Your task to perform on an android device: delete location history Image 0: 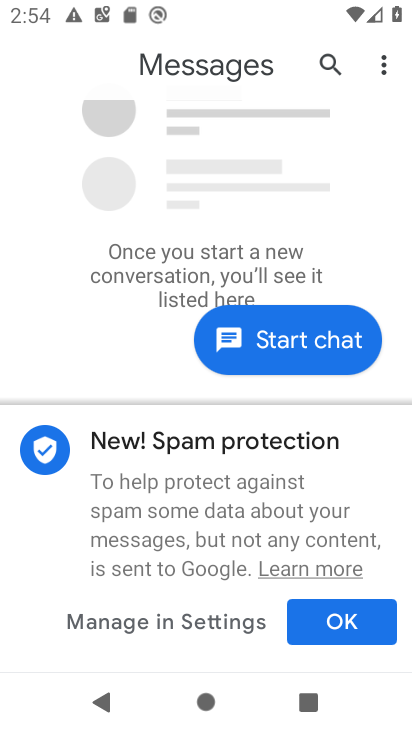
Step 0: press home button
Your task to perform on an android device: delete location history Image 1: 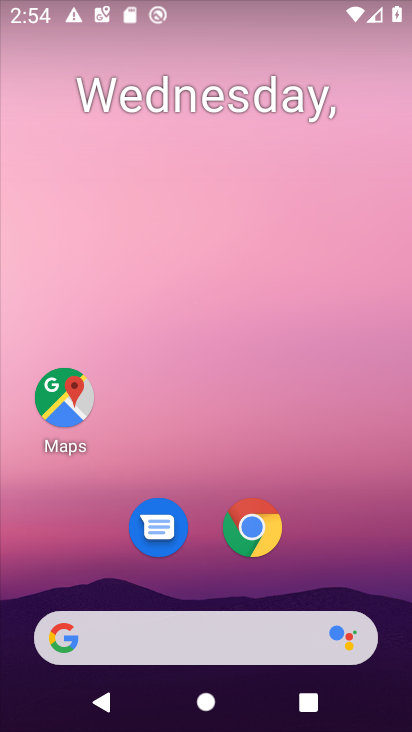
Step 1: drag from (207, 562) to (172, 116)
Your task to perform on an android device: delete location history Image 2: 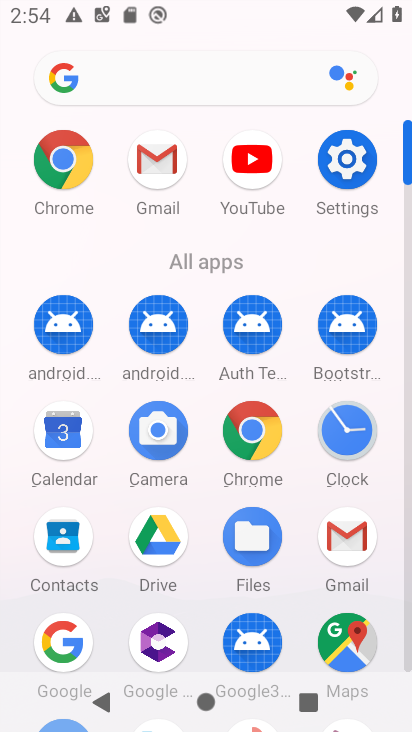
Step 2: click (342, 645)
Your task to perform on an android device: delete location history Image 3: 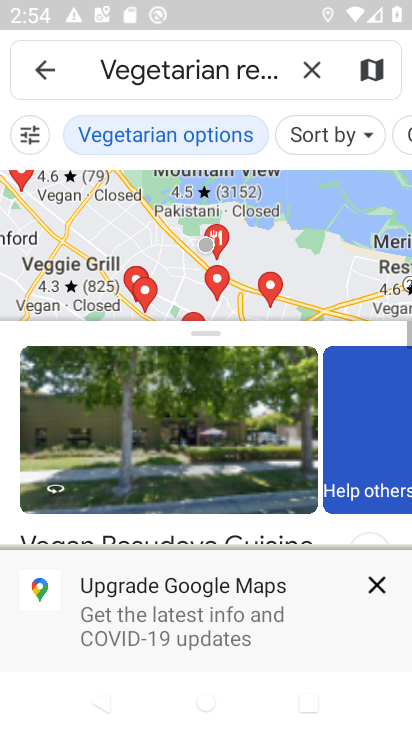
Step 3: click (39, 62)
Your task to perform on an android device: delete location history Image 4: 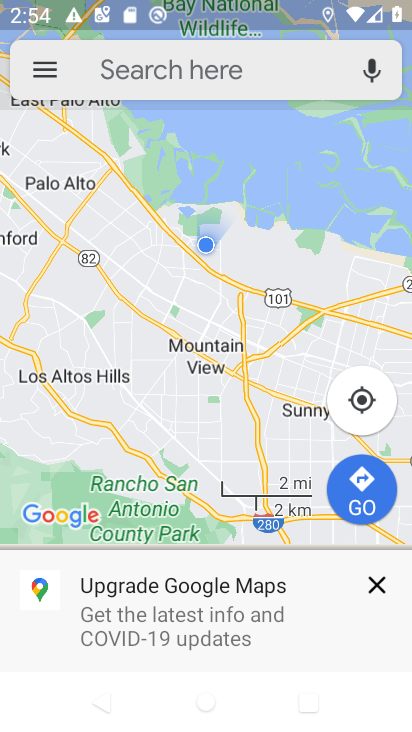
Step 4: click (39, 62)
Your task to perform on an android device: delete location history Image 5: 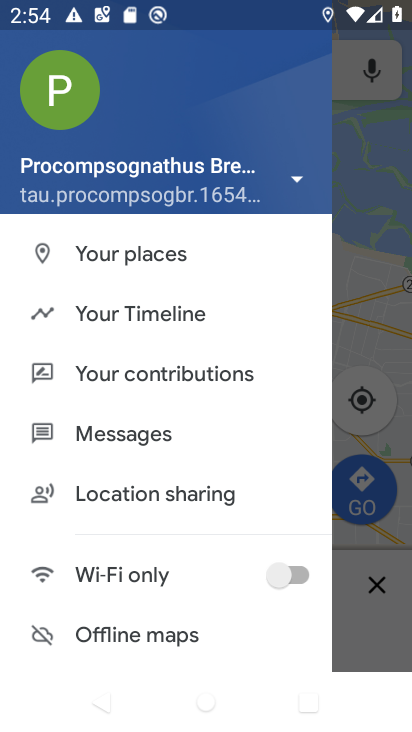
Step 5: drag from (129, 603) to (140, 135)
Your task to perform on an android device: delete location history Image 6: 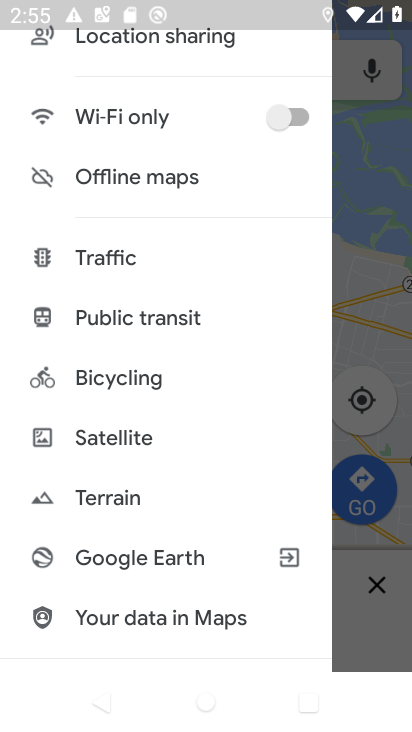
Step 6: drag from (225, 515) to (224, 164)
Your task to perform on an android device: delete location history Image 7: 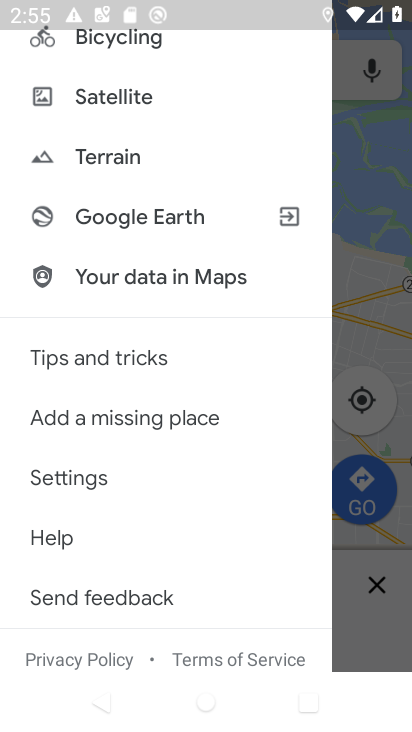
Step 7: click (90, 486)
Your task to perform on an android device: delete location history Image 8: 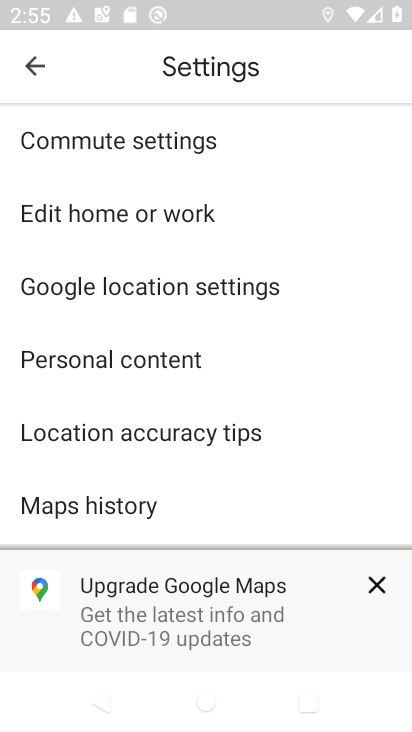
Step 8: click (124, 507)
Your task to perform on an android device: delete location history Image 9: 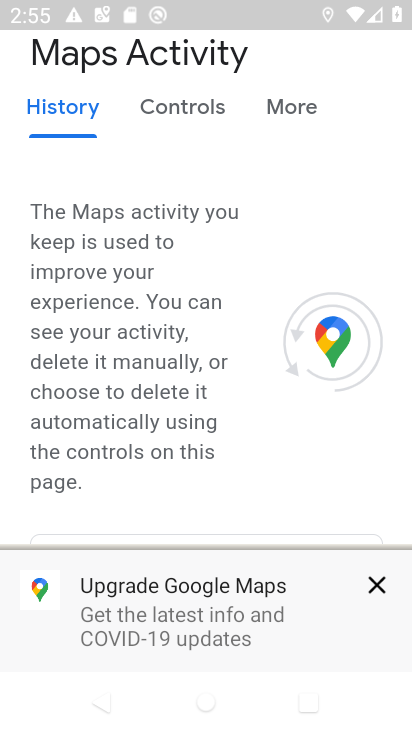
Step 9: drag from (172, 343) to (191, 52)
Your task to perform on an android device: delete location history Image 10: 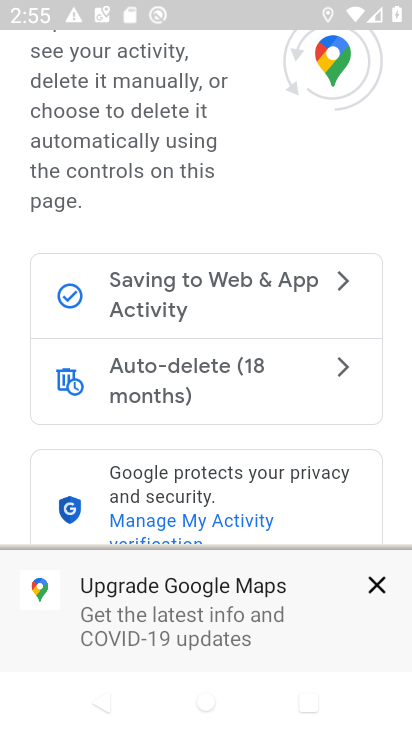
Step 10: click (381, 580)
Your task to perform on an android device: delete location history Image 11: 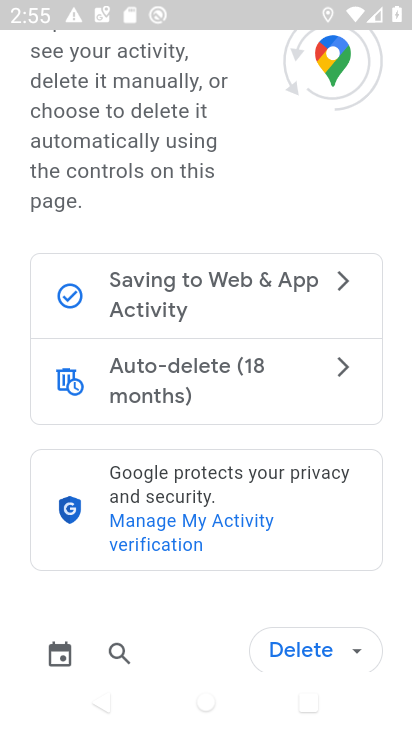
Step 11: click (332, 642)
Your task to perform on an android device: delete location history Image 12: 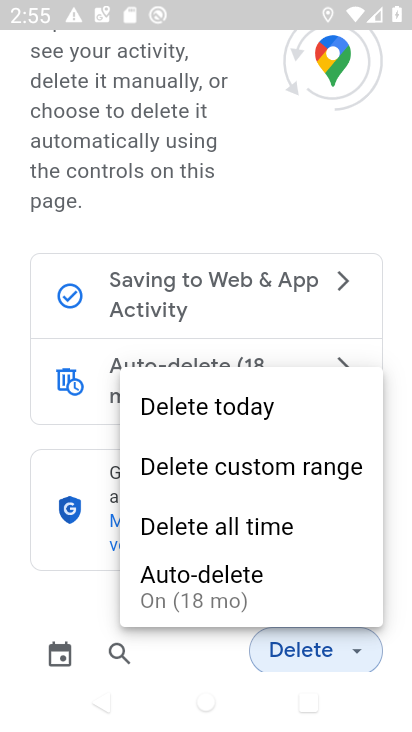
Step 12: drag from (197, 619) to (204, 482)
Your task to perform on an android device: delete location history Image 13: 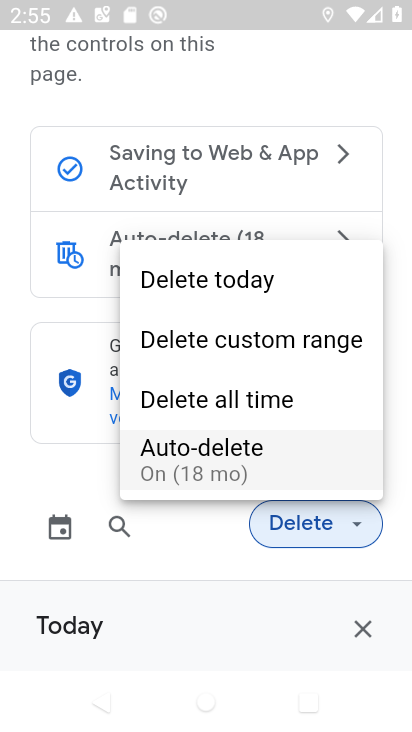
Step 13: click (181, 469)
Your task to perform on an android device: delete location history Image 14: 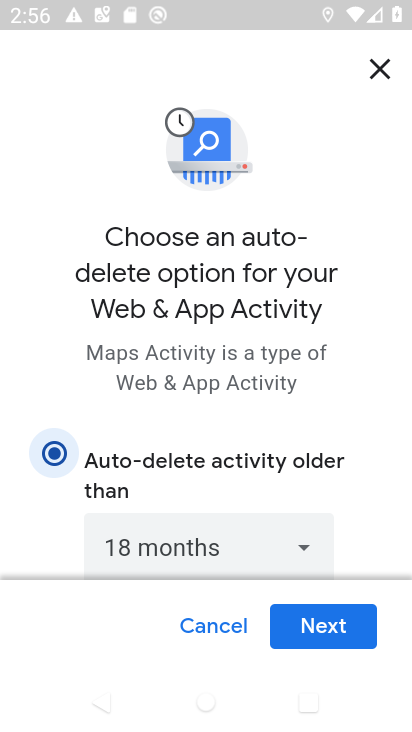
Step 14: click (301, 616)
Your task to perform on an android device: delete location history Image 15: 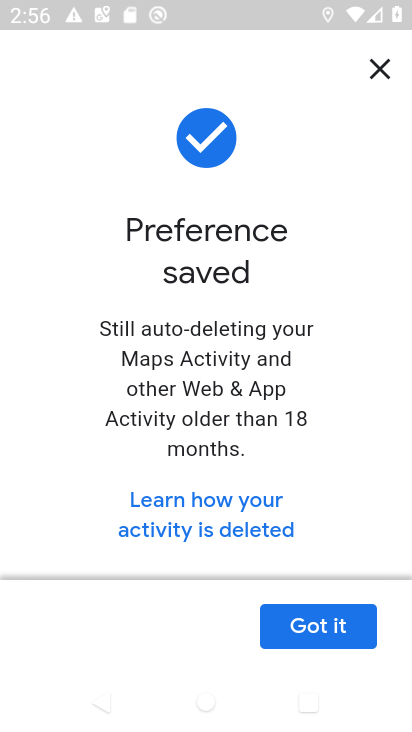
Step 15: click (334, 614)
Your task to perform on an android device: delete location history Image 16: 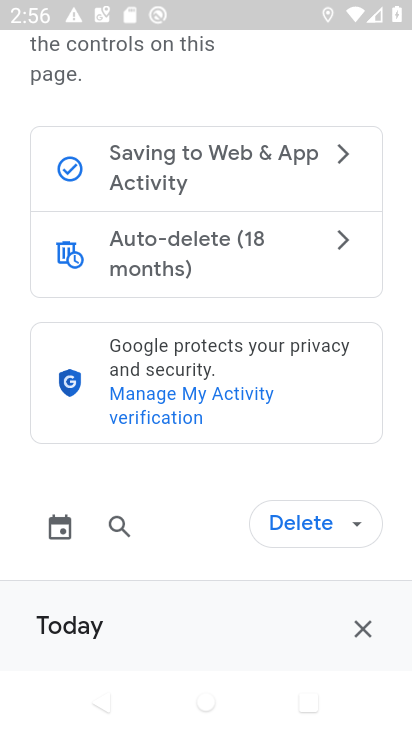
Step 16: click (315, 520)
Your task to perform on an android device: delete location history Image 17: 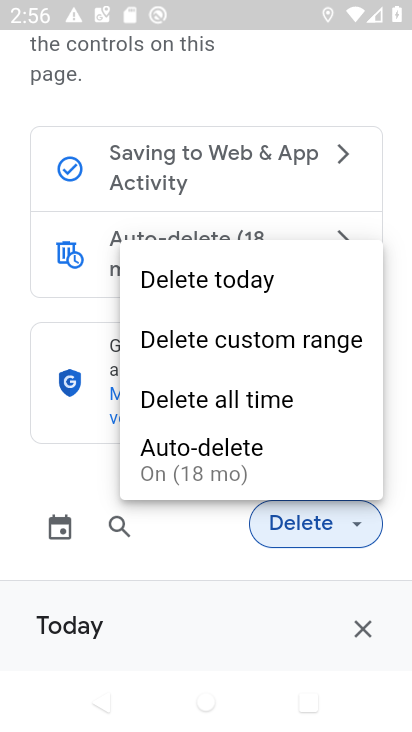
Step 17: click (234, 398)
Your task to perform on an android device: delete location history Image 18: 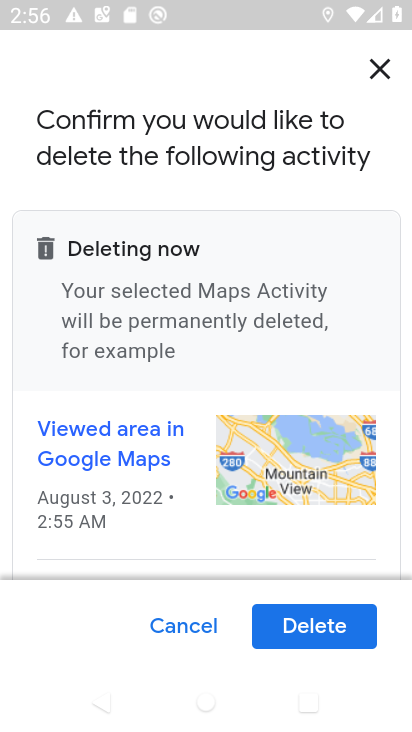
Step 18: click (316, 629)
Your task to perform on an android device: delete location history Image 19: 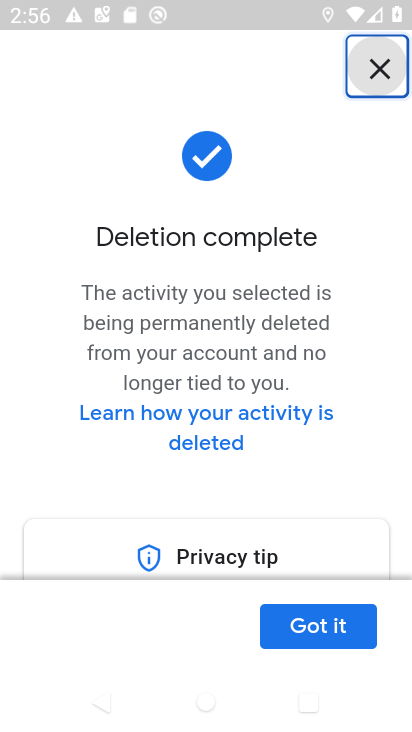
Step 19: click (296, 615)
Your task to perform on an android device: delete location history Image 20: 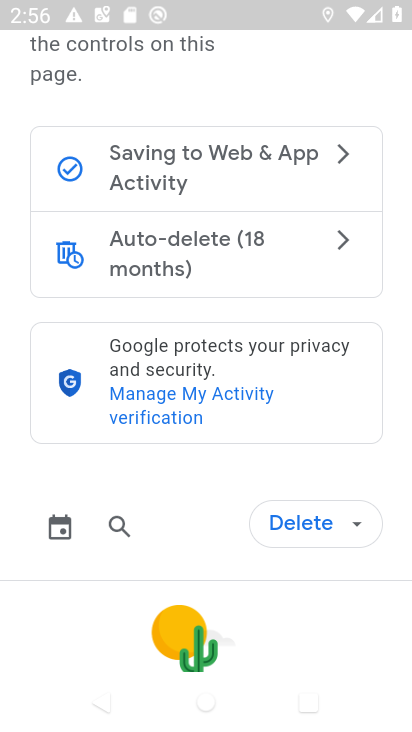
Step 20: task complete